Your task to perform on an android device: clear all cookies in the chrome app Image 0: 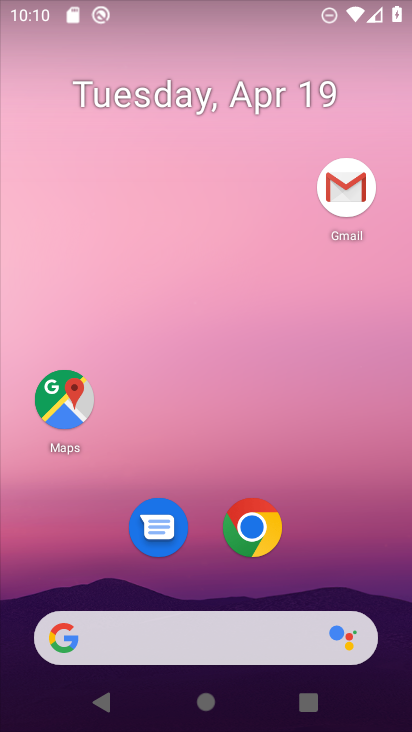
Step 0: drag from (360, 551) to (367, 150)
Your task to perform on an android device: clear all cookies in the chrome app Image 1: 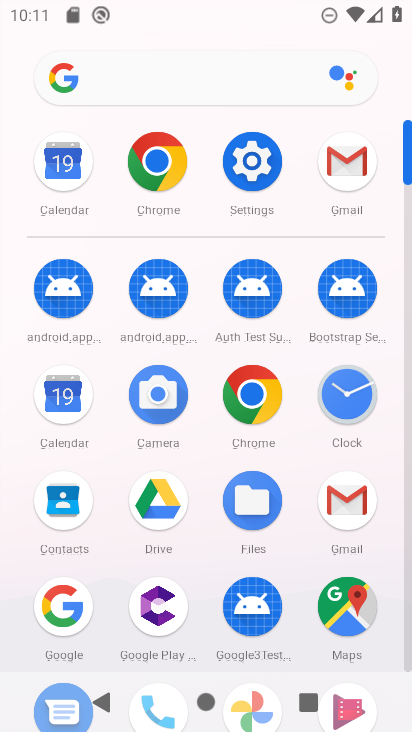
Step 1: drag from (291, 538) to (305, 249)
Your task to perform on an android device: clear all cookies in the chrome app Image 2: 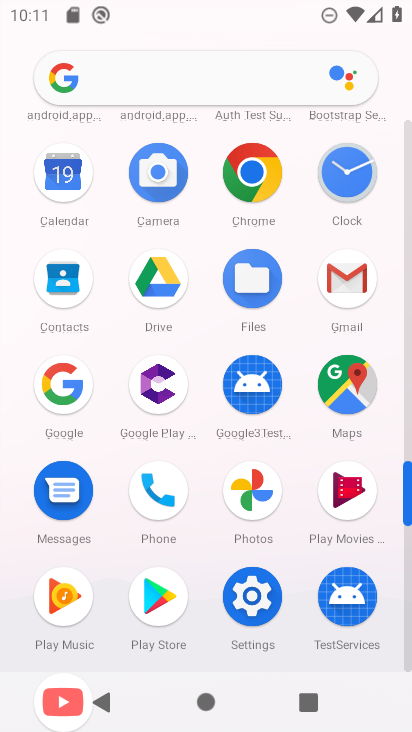
Step 2: click (259, 182)
Your task to perform on an android device: clear all cookies in the chrome app Image 3: 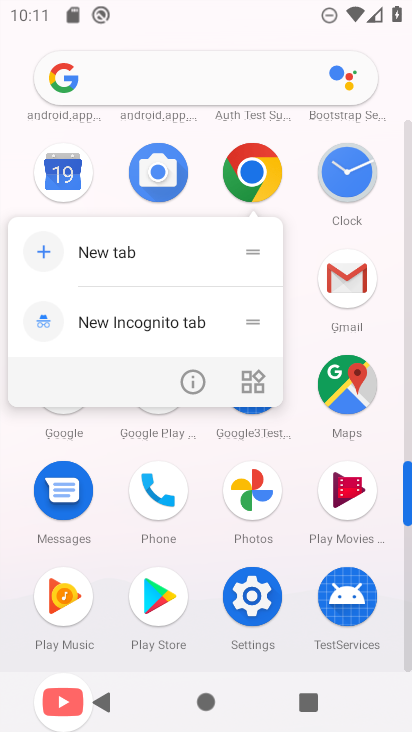
Step 3: click (257, 188)
Your task to perform on an android device: clear all cookies in the chrome app Image 4: 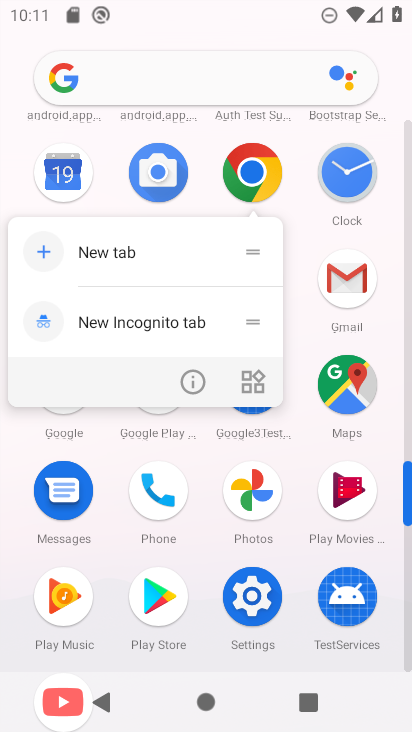
Step 4: click (257, 188)
Your task to perform on an android device: clear all cookies in the chrome app Image 5: 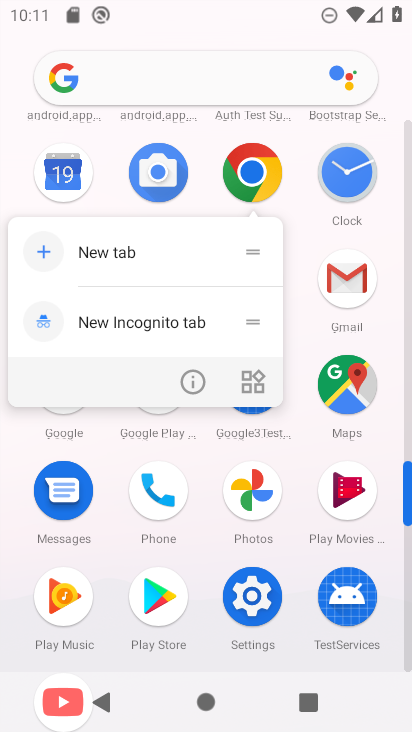
Step 5: click (275, 174)
Your task to perform on an android device: clear all cookies in the chrome app Image 6: 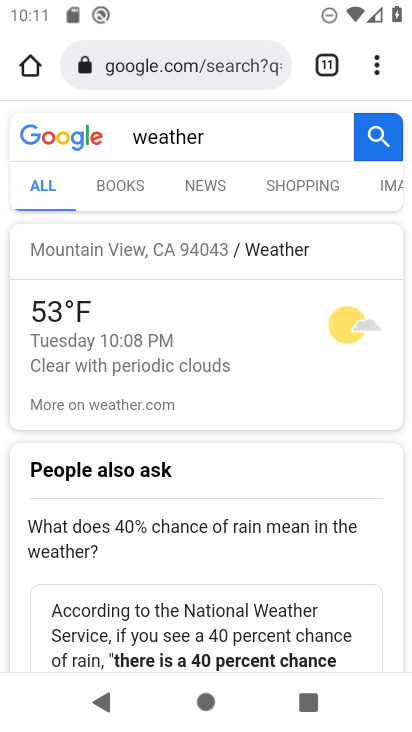
Step 6: drag from (378, 70) to (255, 266)
Your task to perform on an android device: clear all cookies in the chrome app Image 7: 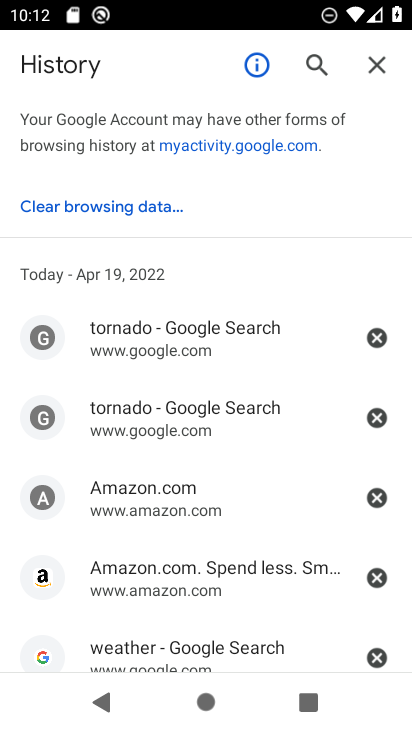
Step 7: click (131, 212)
Your task to perform on an android device: clear all cookies in the chrome app Image 8: 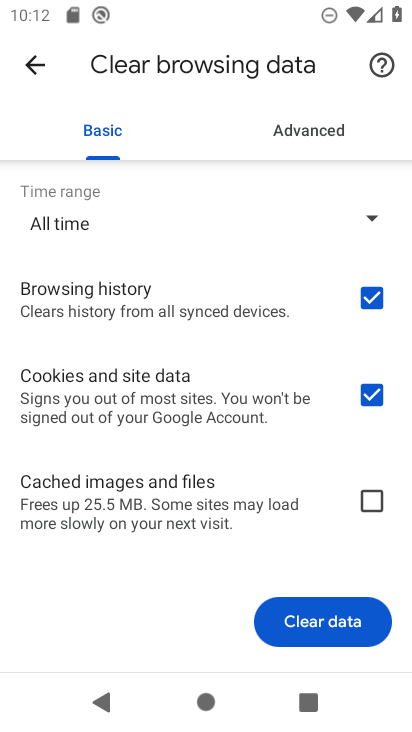
Step 8: click (312, 618)
Your task to perform on an android device: clear all cookies in the chrome app Image 9: 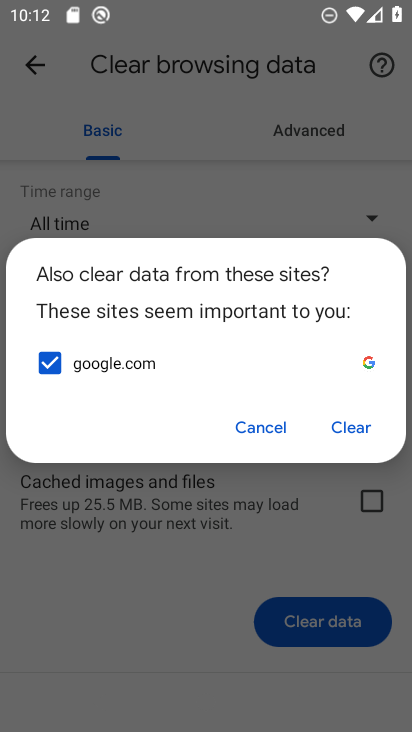
Step 9: click (347, 421)
Your task to perform on an android device: clear all cookies in the chrome app Image 10: 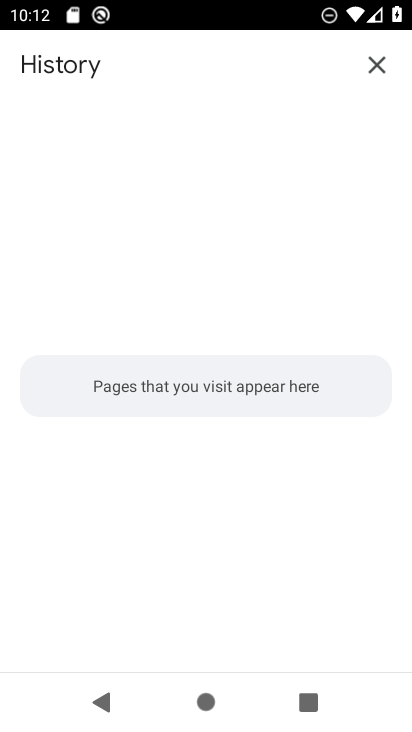
Step 10: task complete